Your task to perform on an android device: View the shopping cart on bestbuy. Image 0: 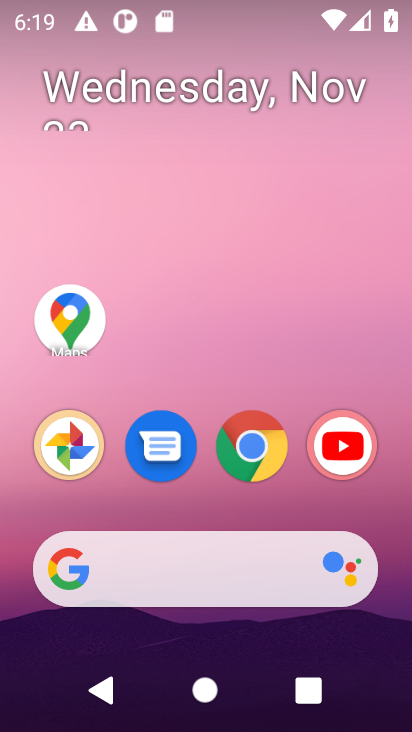
Step 0: click (185, 559)
Your task to perform on an android device: View the shopping cart on bestbuy. Image 1: 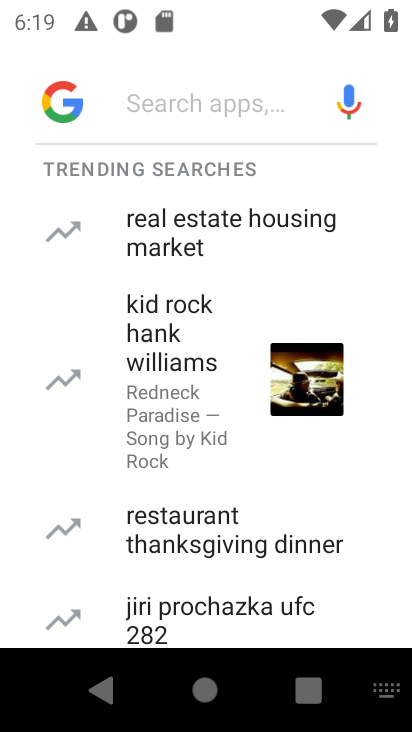
Step 1: type "bestbuy.com"
Your task to perform on an android device: View the shopping cart on bestbuy. Image 2: 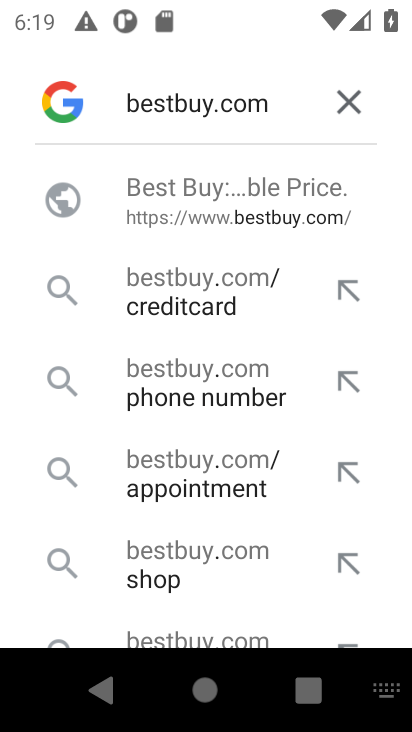
Step 2: click (250, 205)
Your task to perform on an android device: View the shopping cart on bestbuy. Image 3: 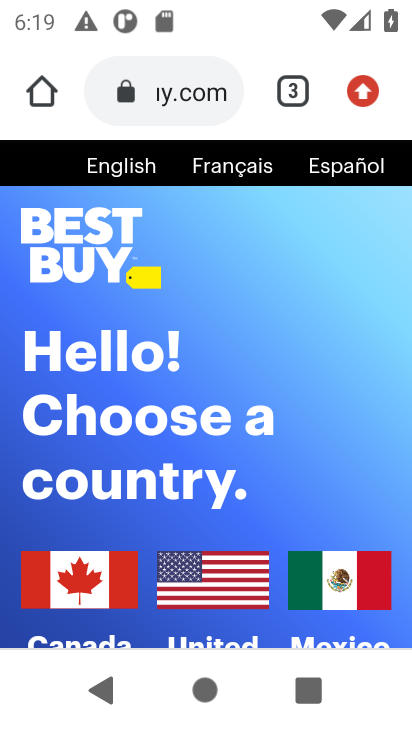
Step 3: click (58, 575)
Your task to perform on an android device: View the shopping cart on bestbuy. Image 4: 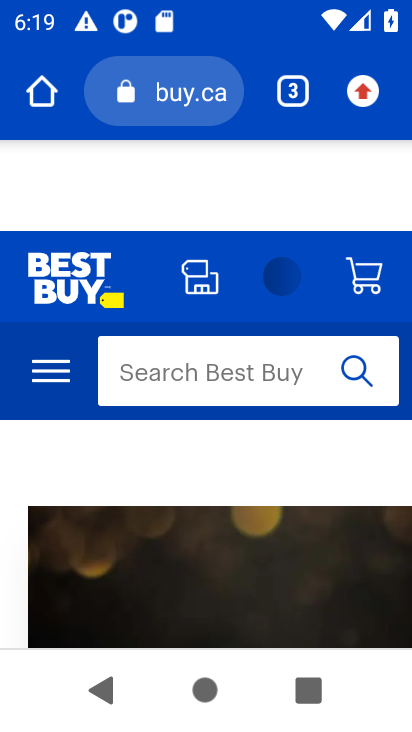
Step 4: click (373, 281)
Your task to perform on an android device: View the shopping cart on bestbuy. Image 5: 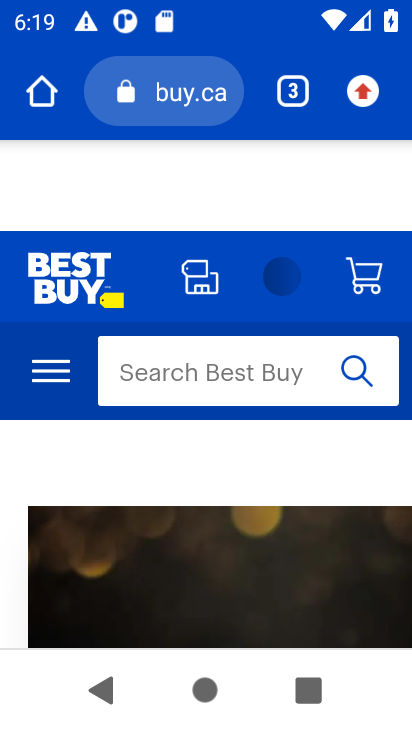
Step 5: click (373, 281)
Your task to perform on an android device: View the shopping cart on bestbuy. Image 6: 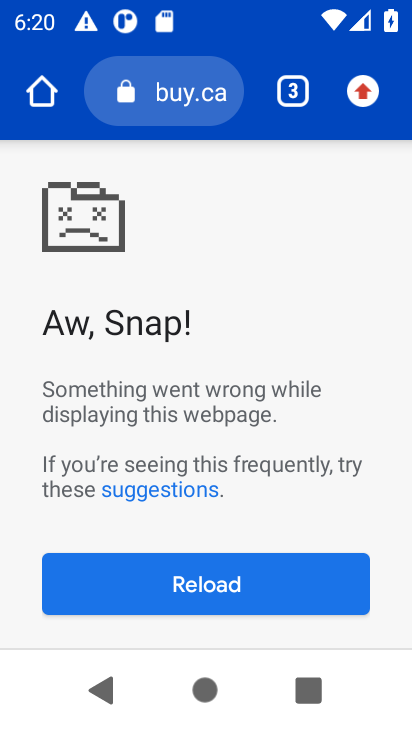
Step 6: task complete